Your task to perform on an android device: Open calendar and show me the third week of next month Image 0: 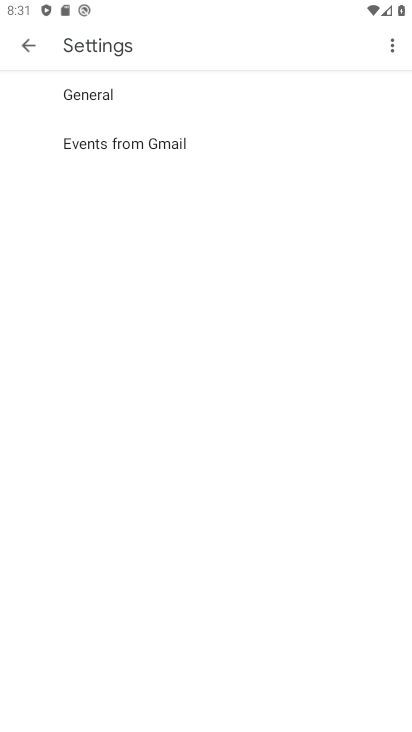
Step 0: press home button
Your task to perform on an android device: Open calendar and show me the third week of next month Image 1: 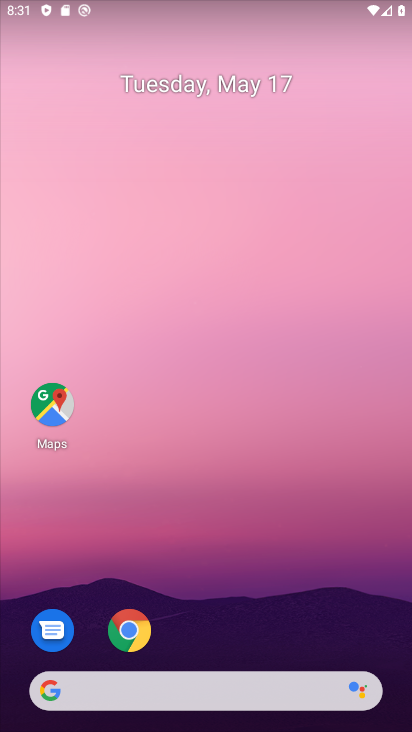
Step 1: drag from (233, 604) to (246, 116)
Your task to perform on an android device: Open calendar and show me the third week of next month Image 2: 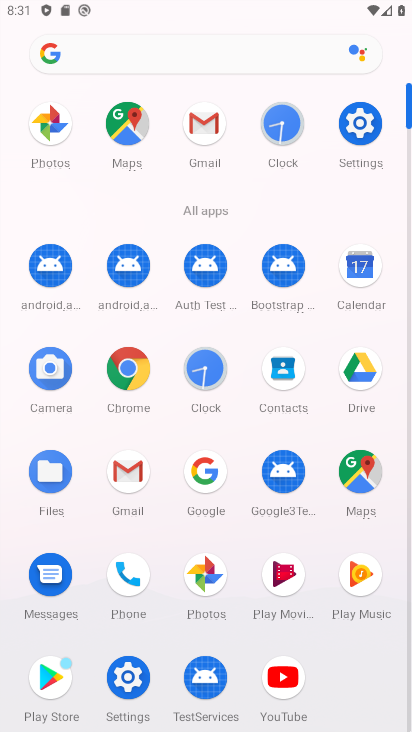
Step 2: click (363, 288)
Your task to perform on an android device: Open calendar and show me the third week of next month Image 3: 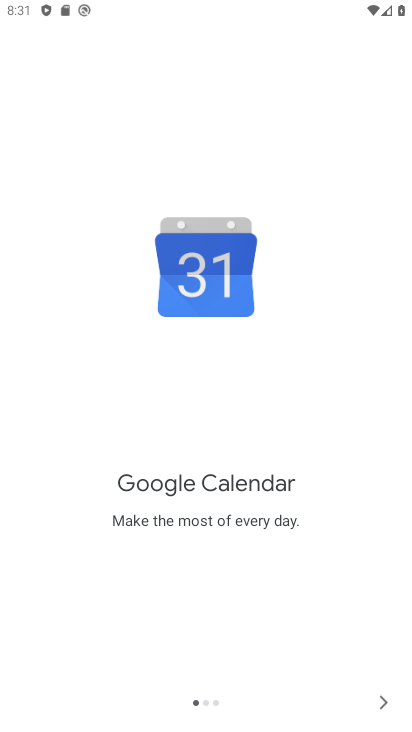
Step 3: click (382, 705)
Your task to perform on an android device: Open calendar and show me the third week of next month Image 4: 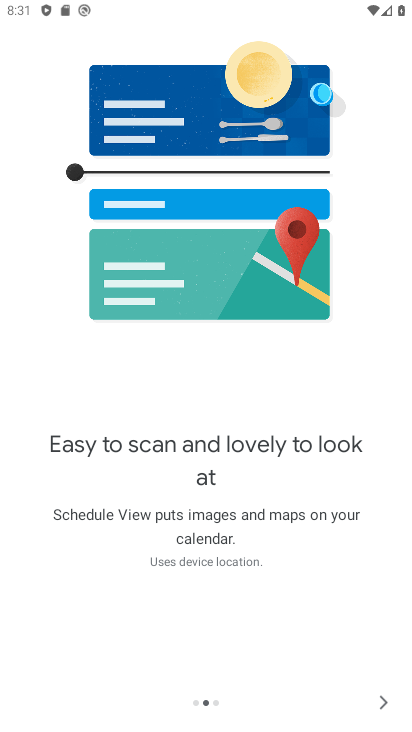
Step 4: click (382, 706)
Your task to perform on an android device: Open calendar and show me the third week of next month Image 5: 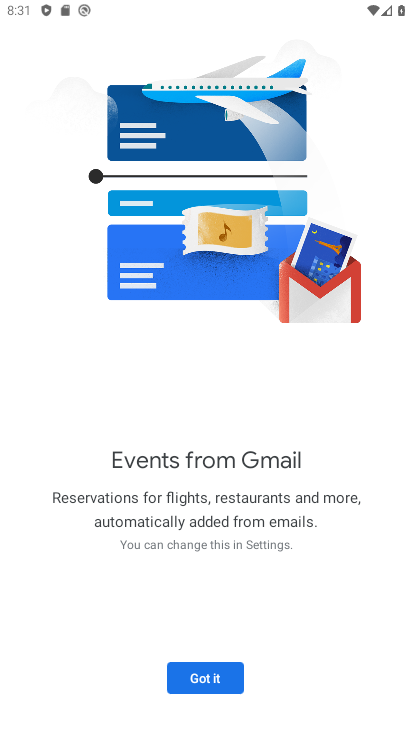
Step 5: click (220, 680)
Your task to perform on an android device: Open calendar and show me the third week of next month Image 6: 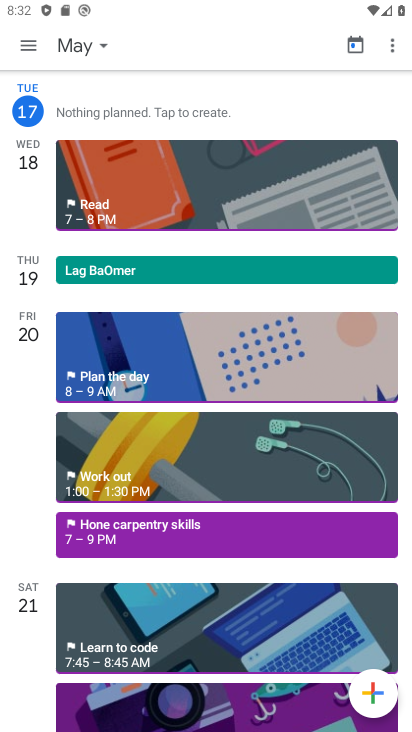
Step 6: click (30, 47)
Your task to perform on an android device: Open calendar and show me the third week of next month Image 7: 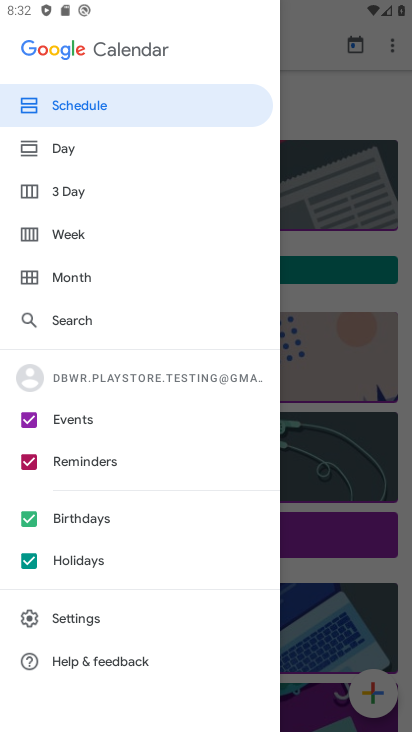
Step 7: click (97, 234)
Your task to perform on an android device: Open calendar and show me the third week of next month Image 8: 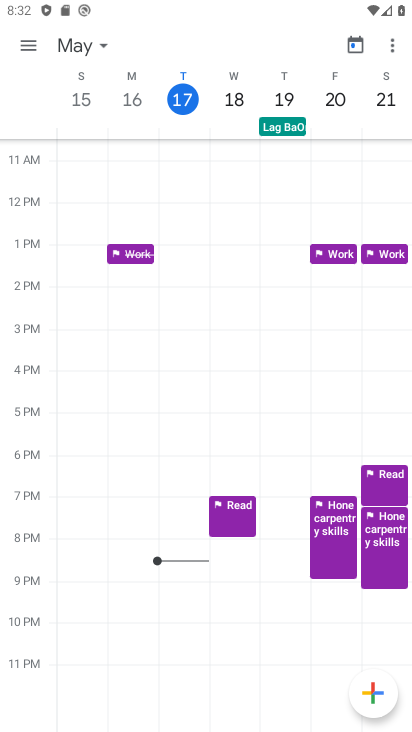
Step 8: click (77, 59)
Your task to perform on an android device: Open calendar and show me the third week of next month Image 9: 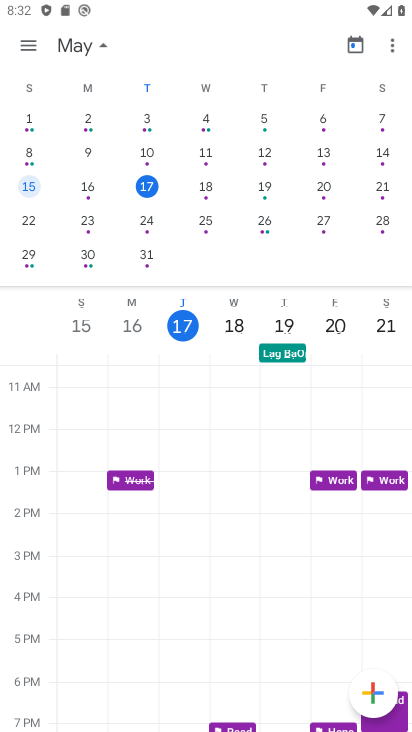
Step 9: drag from (324, 197) to (13, 162)
Your task to perform on an android device: Open calendar and show me the third week of next month Image 10: 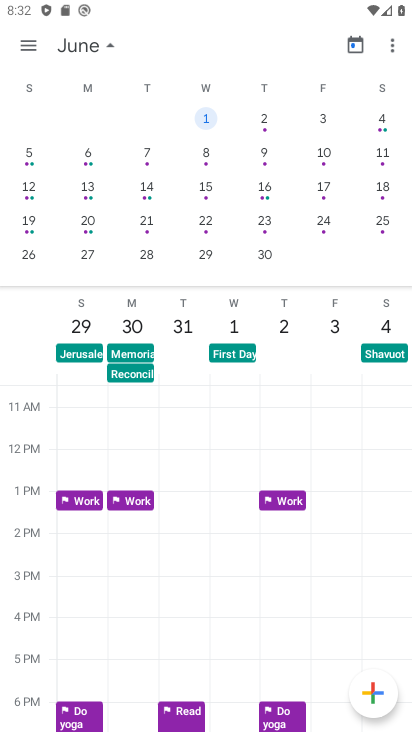
Step 10: click (30, 220)
Your task to perform on an android device: Open calendar and show me the third week of next month Image 11: 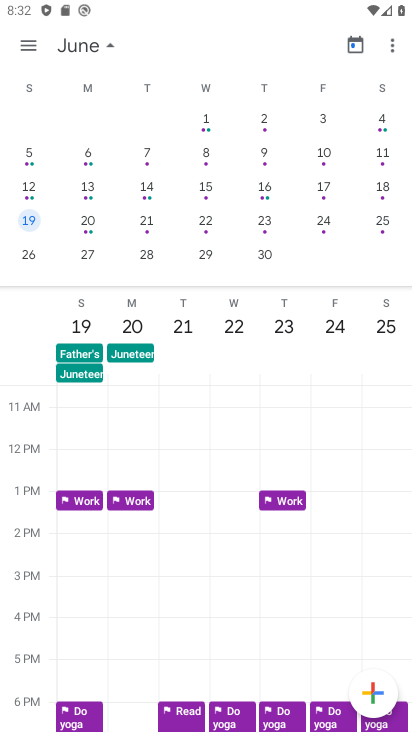
Step 11: task complete